Your task to perform on an android device: Turn on the flashlight Image 0: 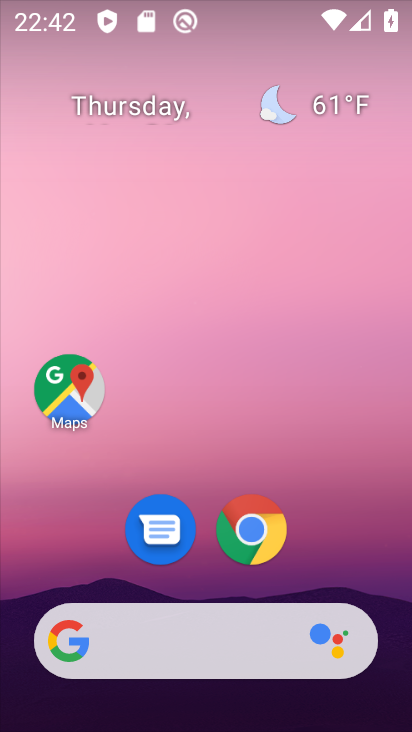
Step 0: drag from (332, 571) to (332, 100)
Your task to perform on an android device: Turn on the flashlight Image 1: 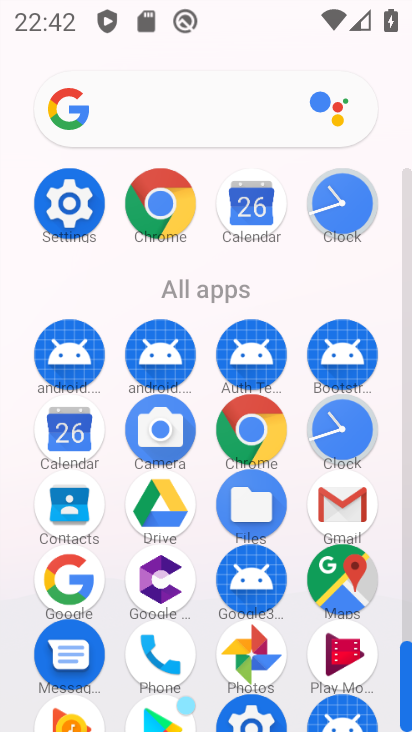
Step 1: click (76, 216)
Your task to perform on an android device: Turn on the flashlight Image 2: 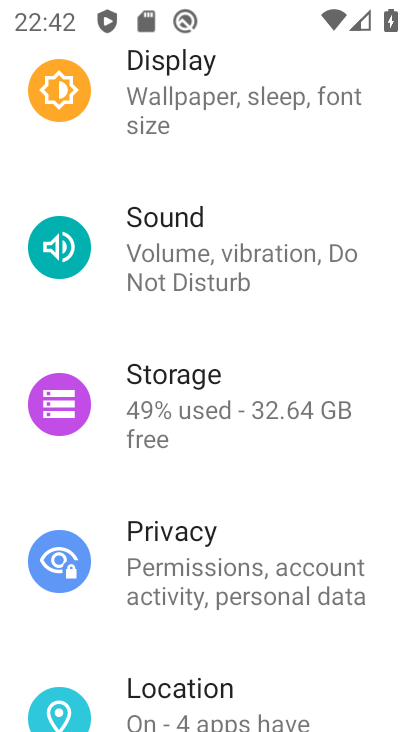
Step 2: task complete